Your task to perform on an android device: Open my contact list Image 0: 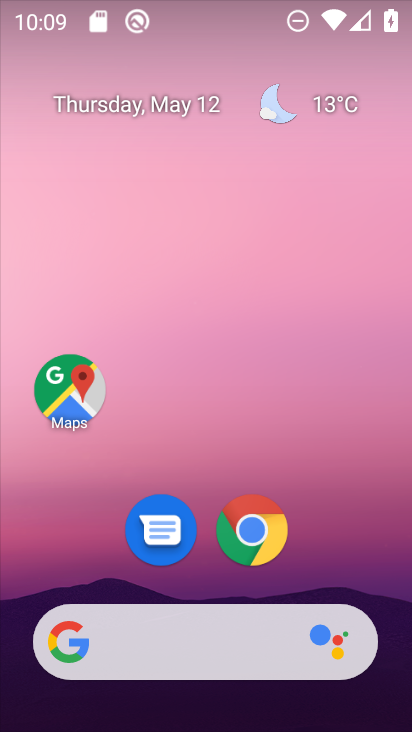
Step 0: drag from (322, 529) to (306, 104)
Your task to perform on an android device: Open my contact list Image 1: 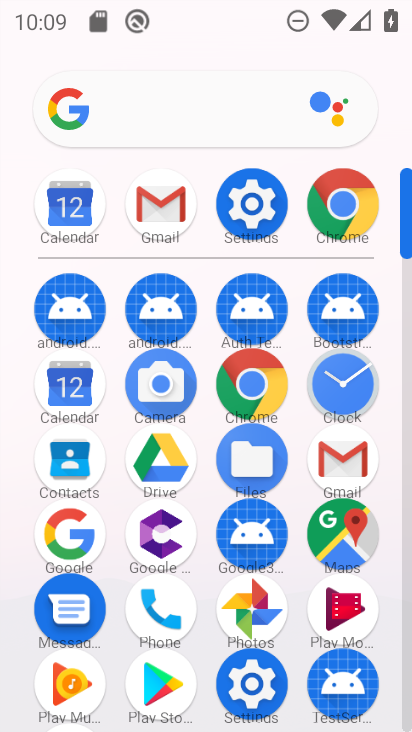
Step 1: click (88, 486)
Your task to perform on an android device: Open my contact list Image 2: 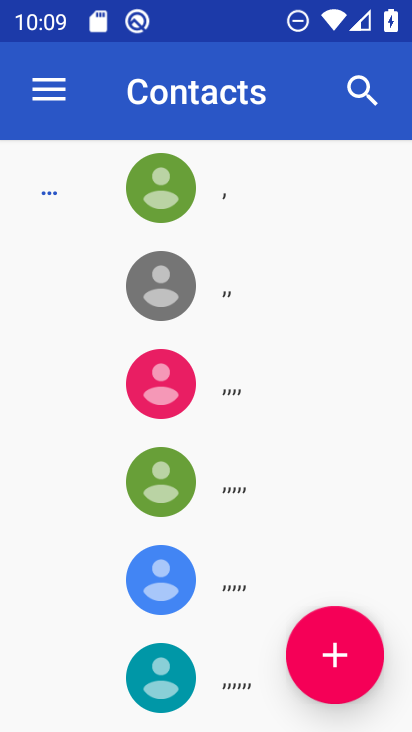
Step 2: task complete